Your task to perform on an android device: change the clock display to analog Image 0: 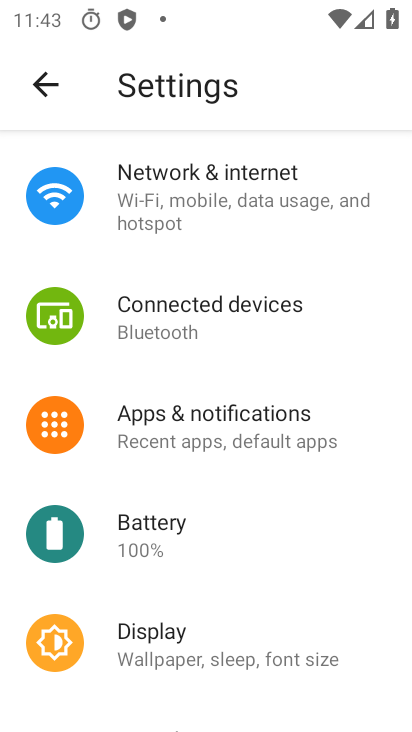
Step 0: press home button
Your task to perform on an android device: change the clock display to analog Image 1: 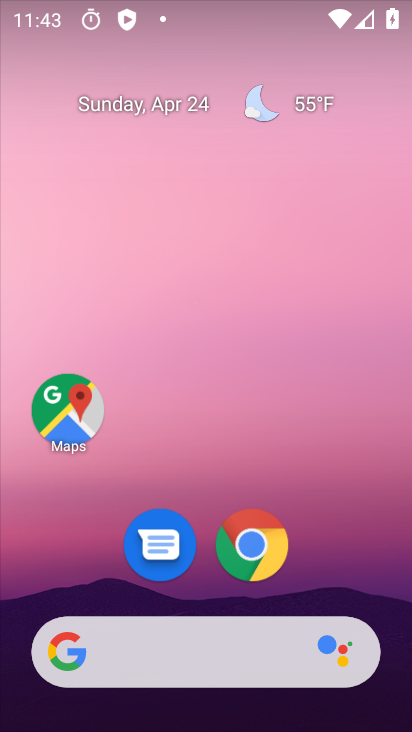
Step 1: drag from (302, 665) to (274, 175)
Your task to perform on an android device: change the clock display to analog Image 2: 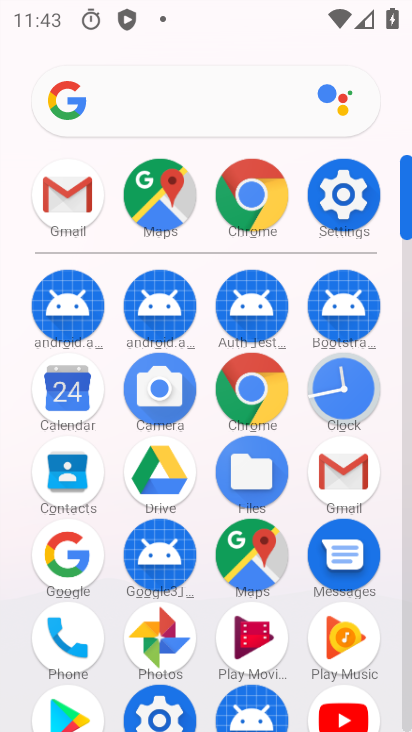
Step 2: drag from (410, 367) to (366, 386)
Your task to perform on an android device: change the clock display to analog Image 3: 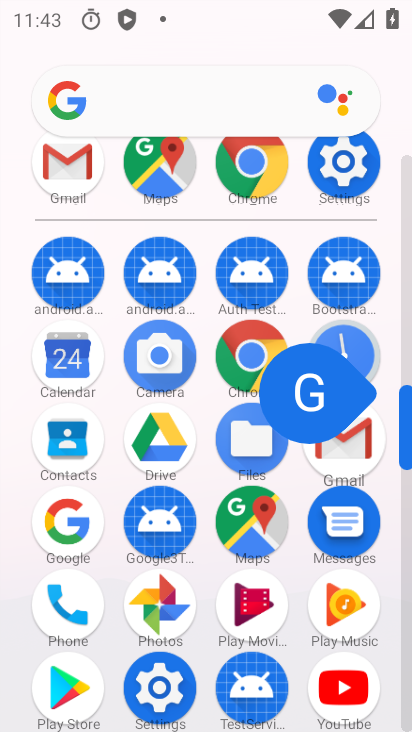
Step 3: click (366, 386)
Your task to perform on an android device: change the clock display to analog Image 4: 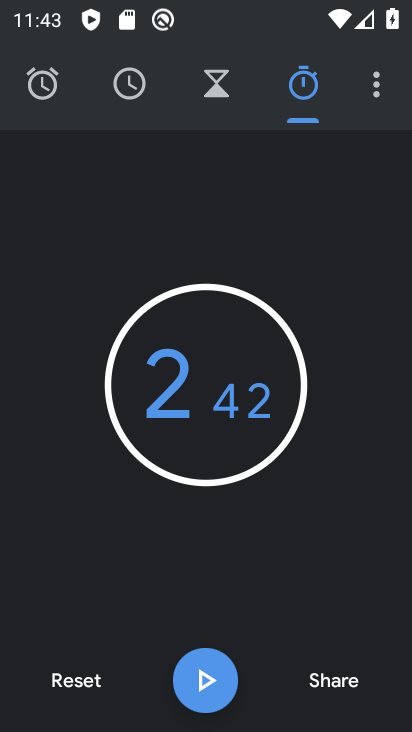
Step 4: click (369, 95)
Your task to perform on an android device: change the clock display to analog Image 5: 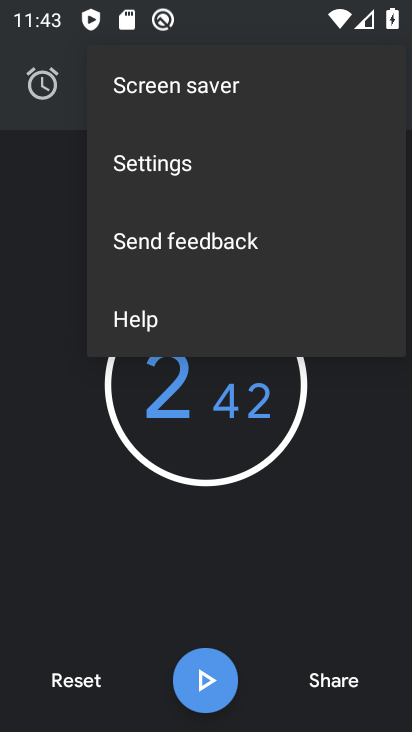
Step 5: click (147, 160)
Your task to perform on an android device: change the clock display to analog Image 6: 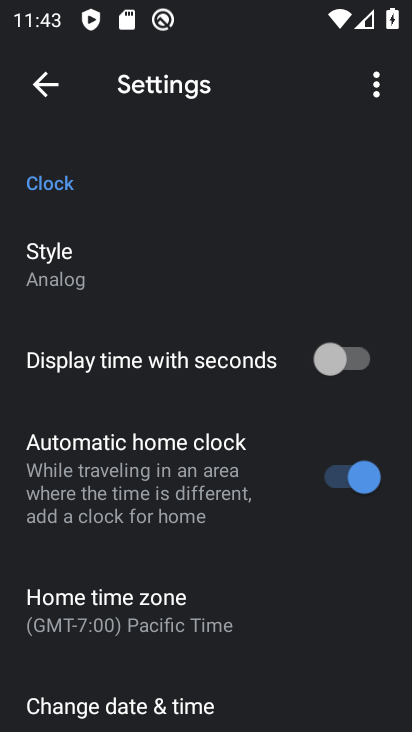
Step 6: click (72, 246)
Your task to perform on an android device: change the clock display to analog Image 7: 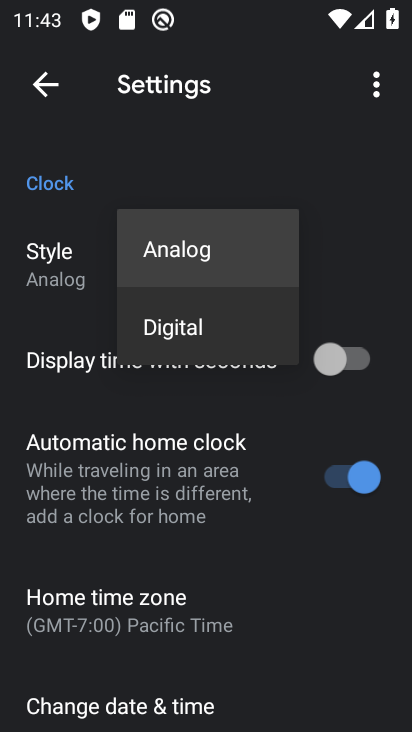
Step 7: click (155, 346)
Your task to perform on an android device: change the clock display to analog Image 8: 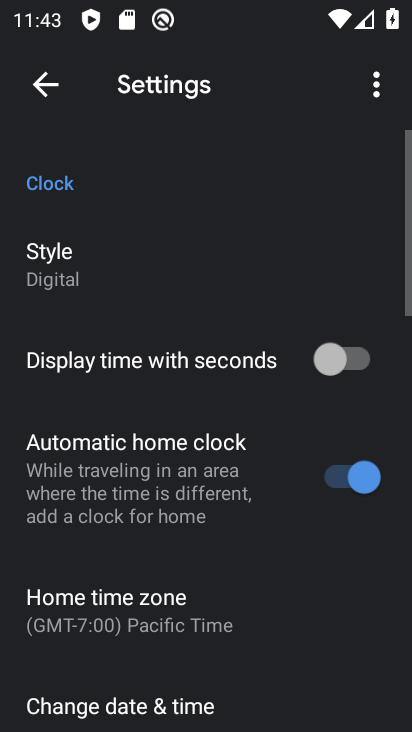
Step 8: task complete